Your task to perform on an android device: Open the calculator Image 0: 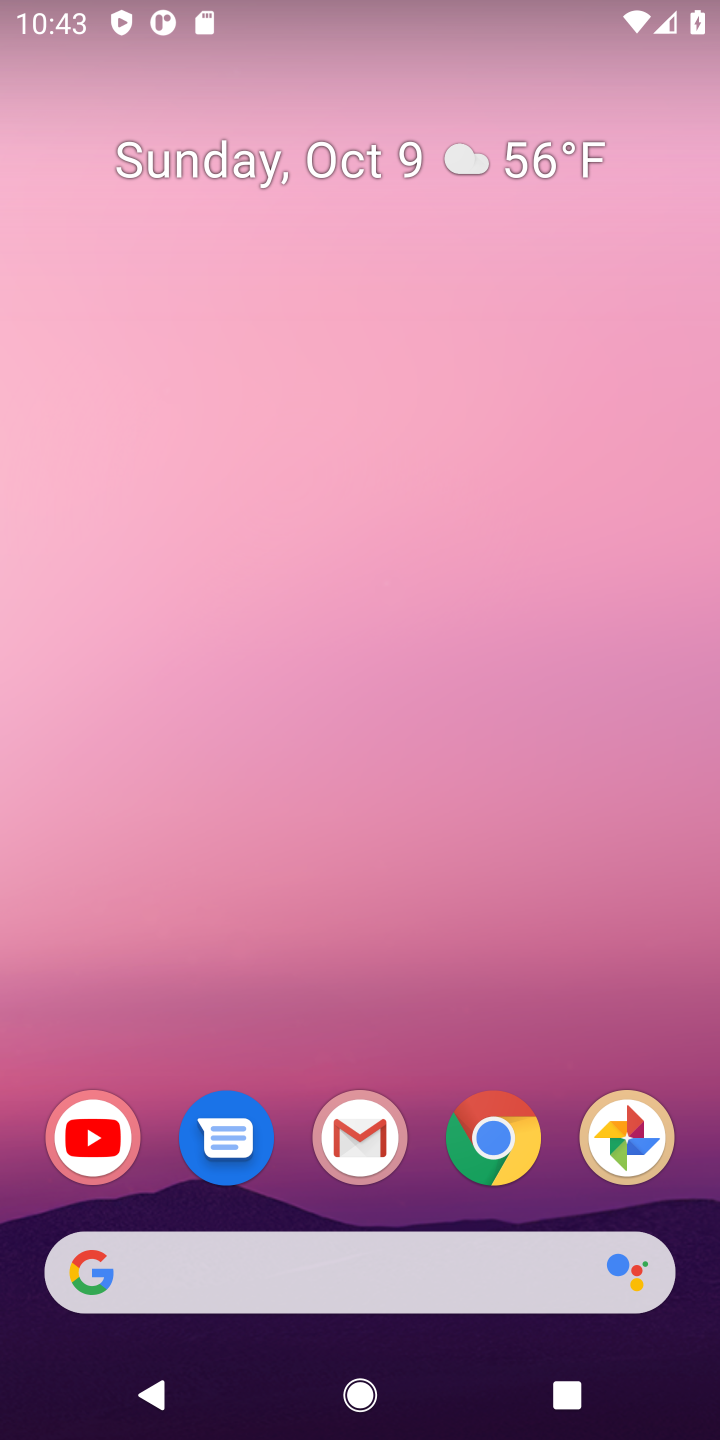
Step 0: drag from (220, 971) to (218, 41)
Your task to perform on an android device: Open the calculator Image 1: 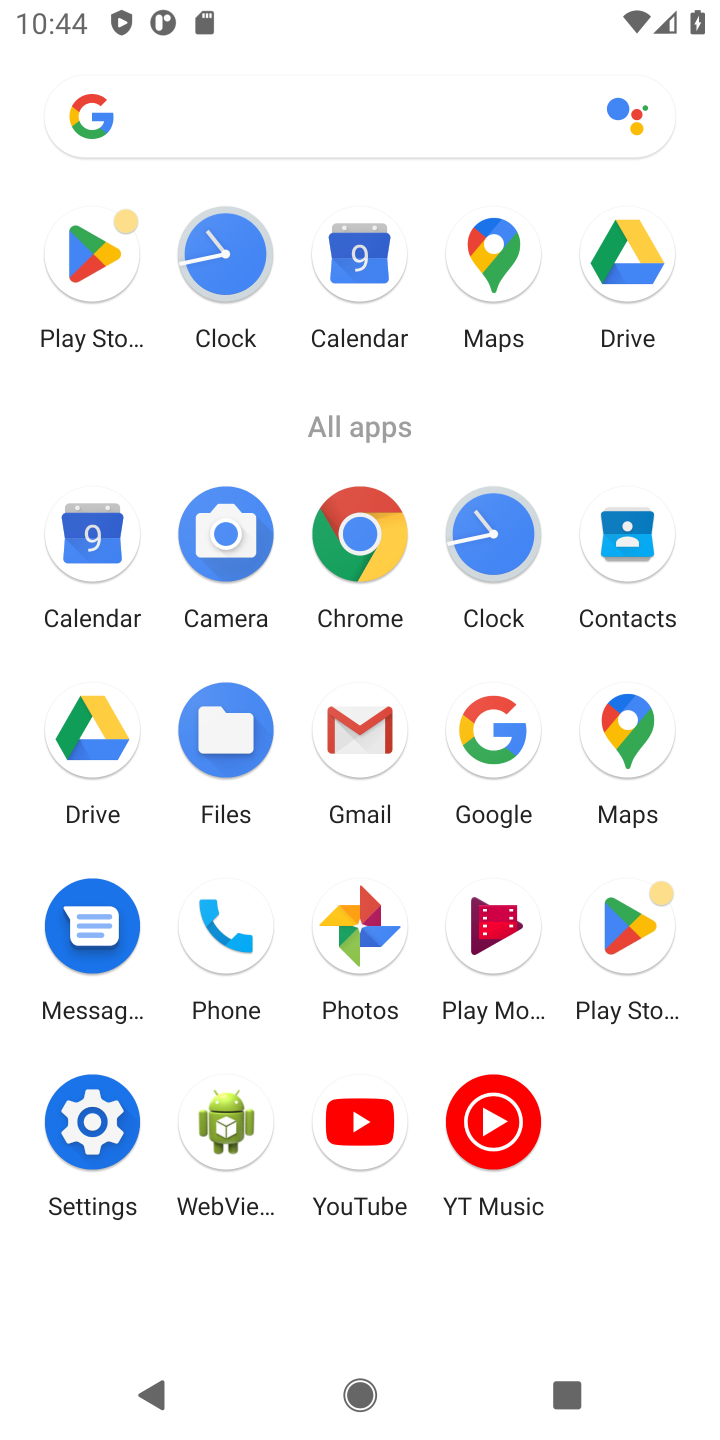
Step 1: click (107, 539)
Your task to perform on an android device: Open the calculator Image 2: 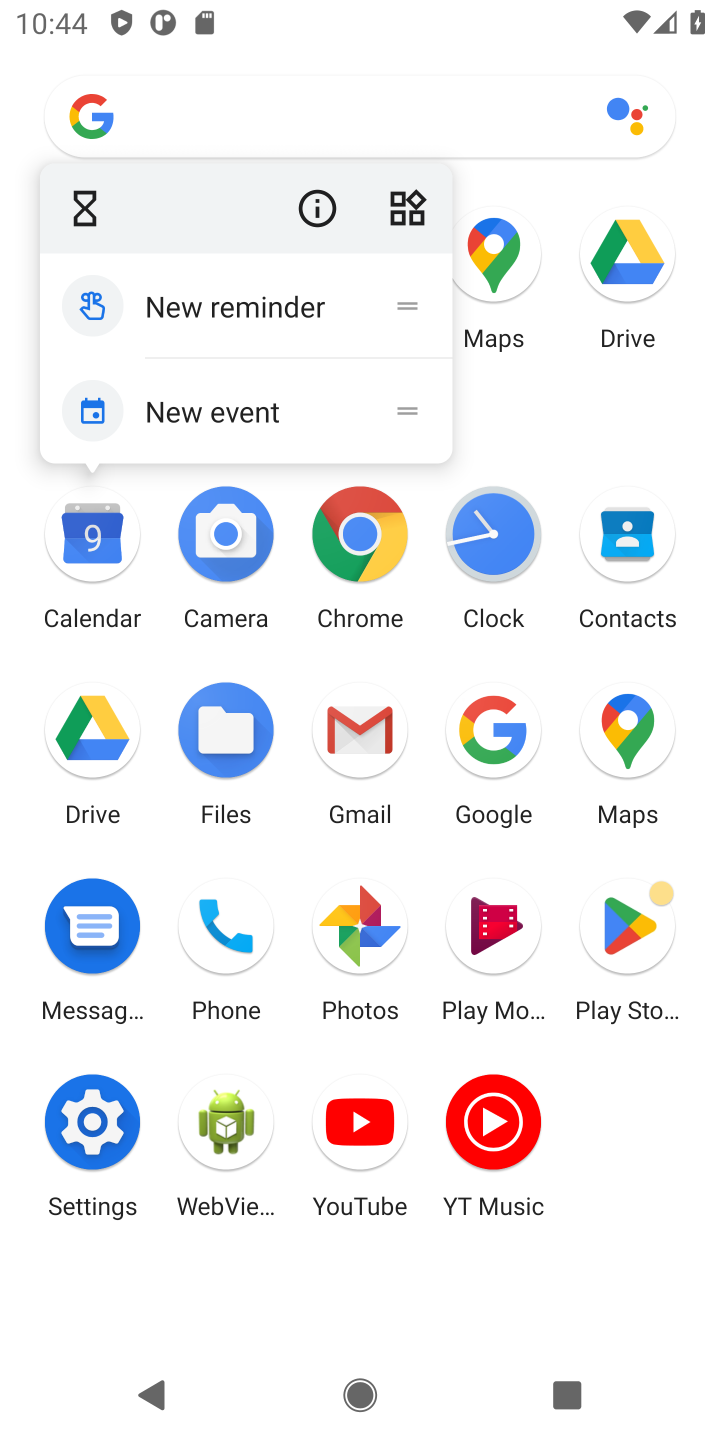
Step 2: click (86, 545)
Your task to perform on an android device: Open the calculator Image 3: 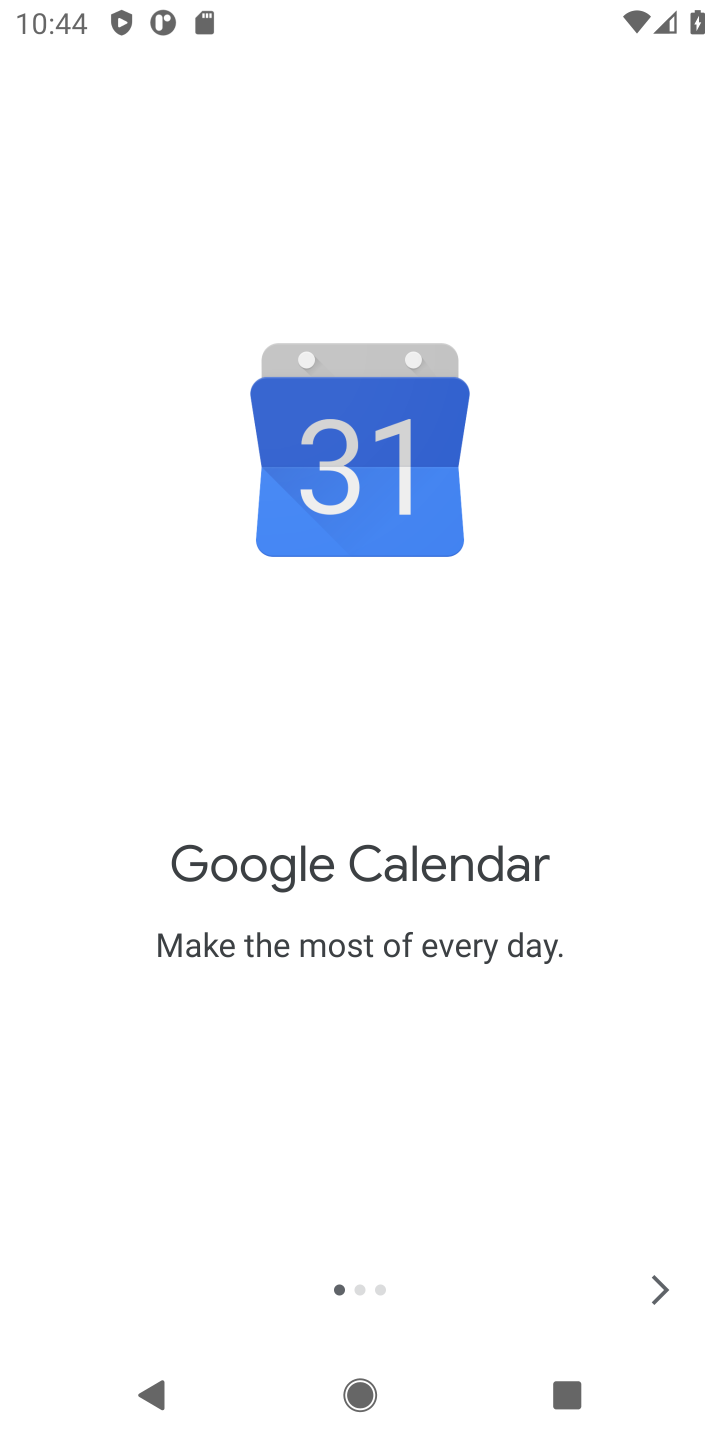
Step 3: click (662, 1280)
Your task to perform on an android device: Open the calculator Image 4: 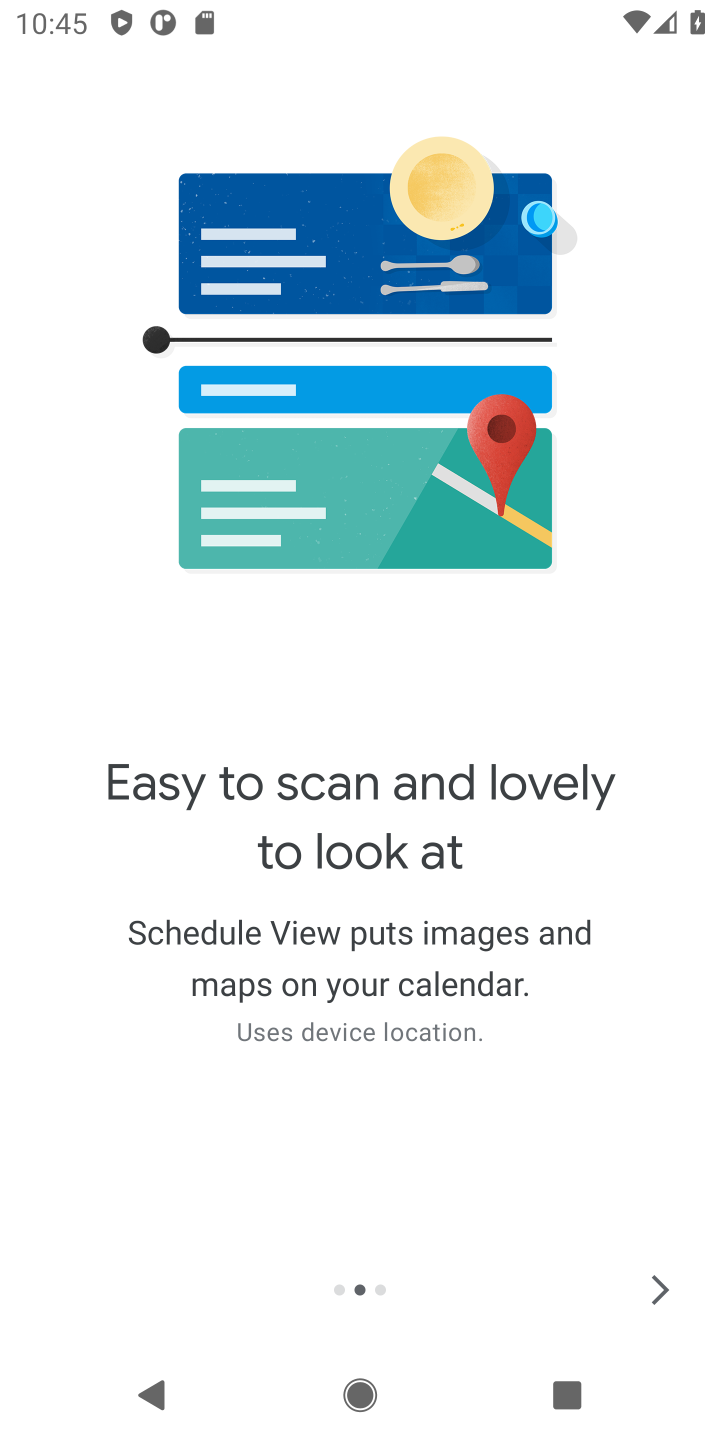
Step 4: click (662, 1280)
Your task to perform on an android device: Open the calculator Image 5: 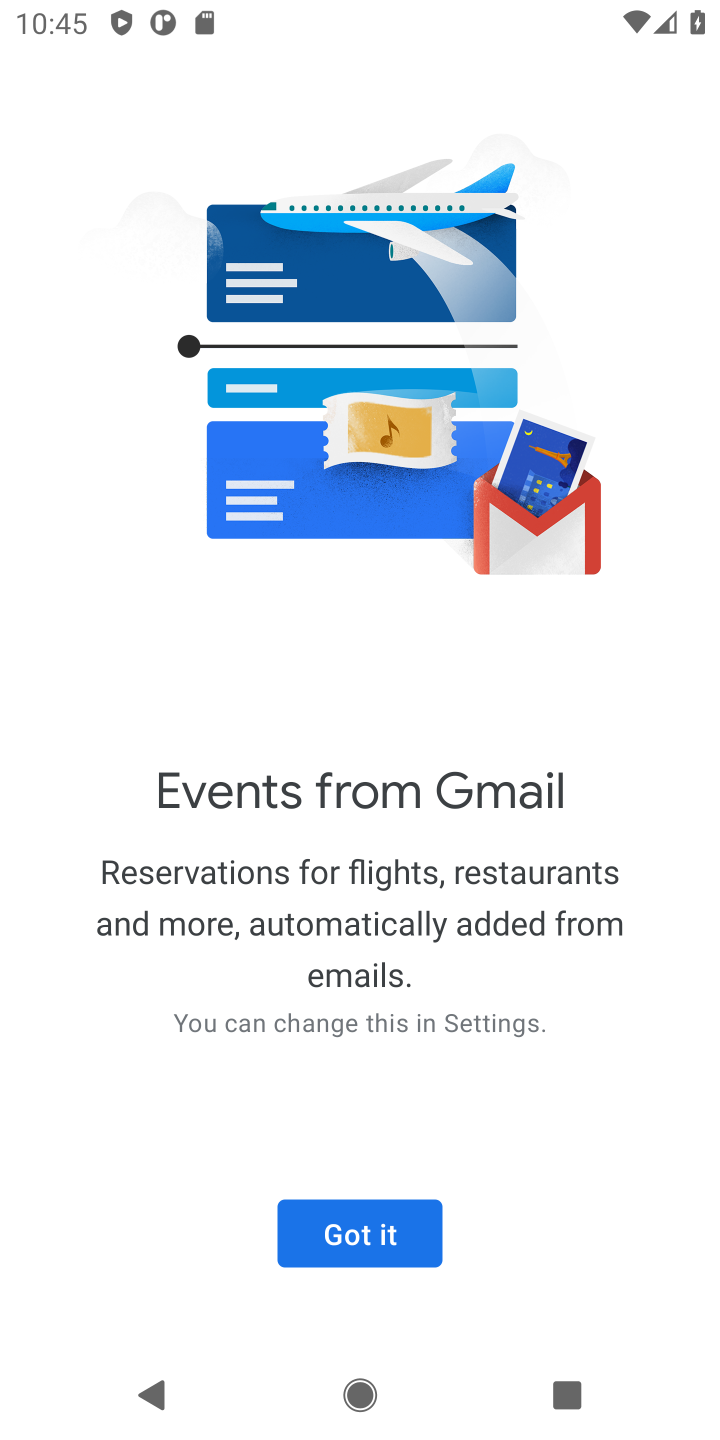
Step 5: click (367, 1227)
Your task to perform on an android device: Open the calculator Image 6: 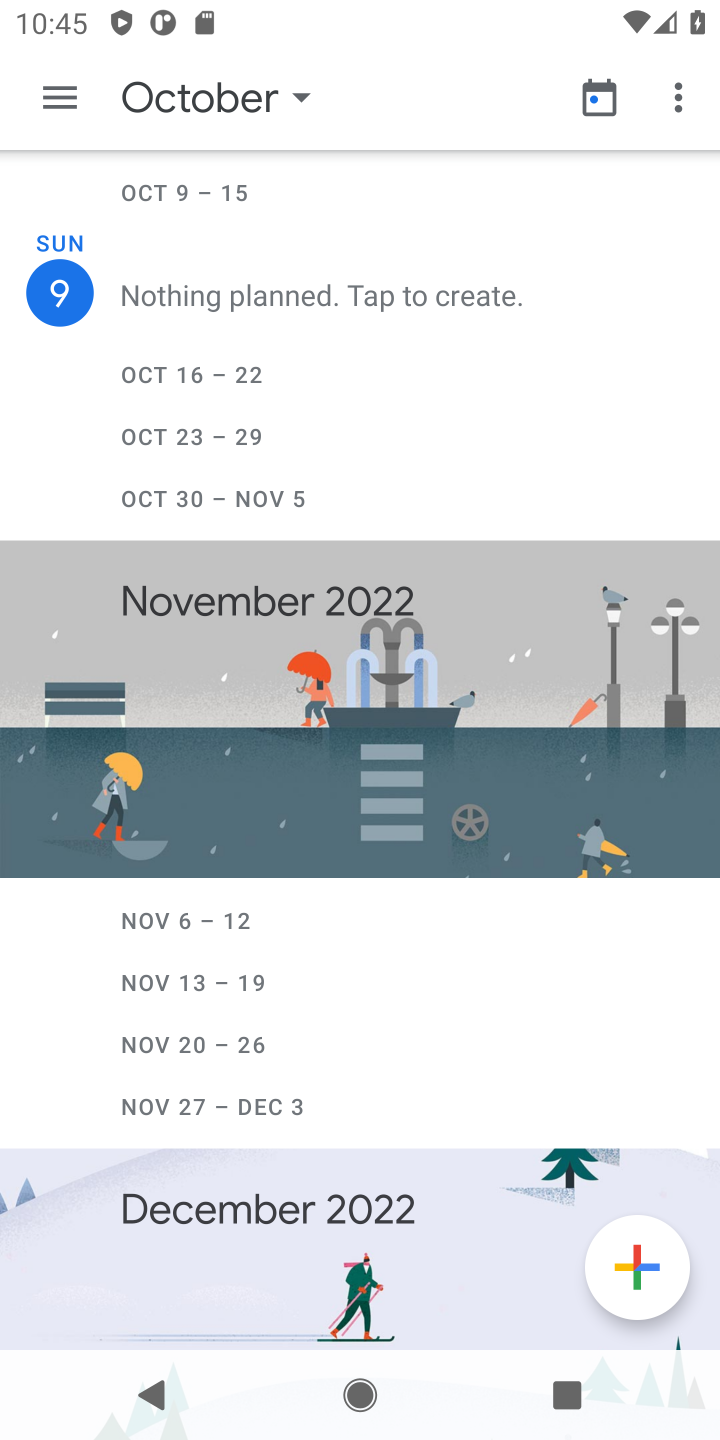
Step 6: click (220, 96)
Your task to perform on an android device: Open the calculator Image 7: 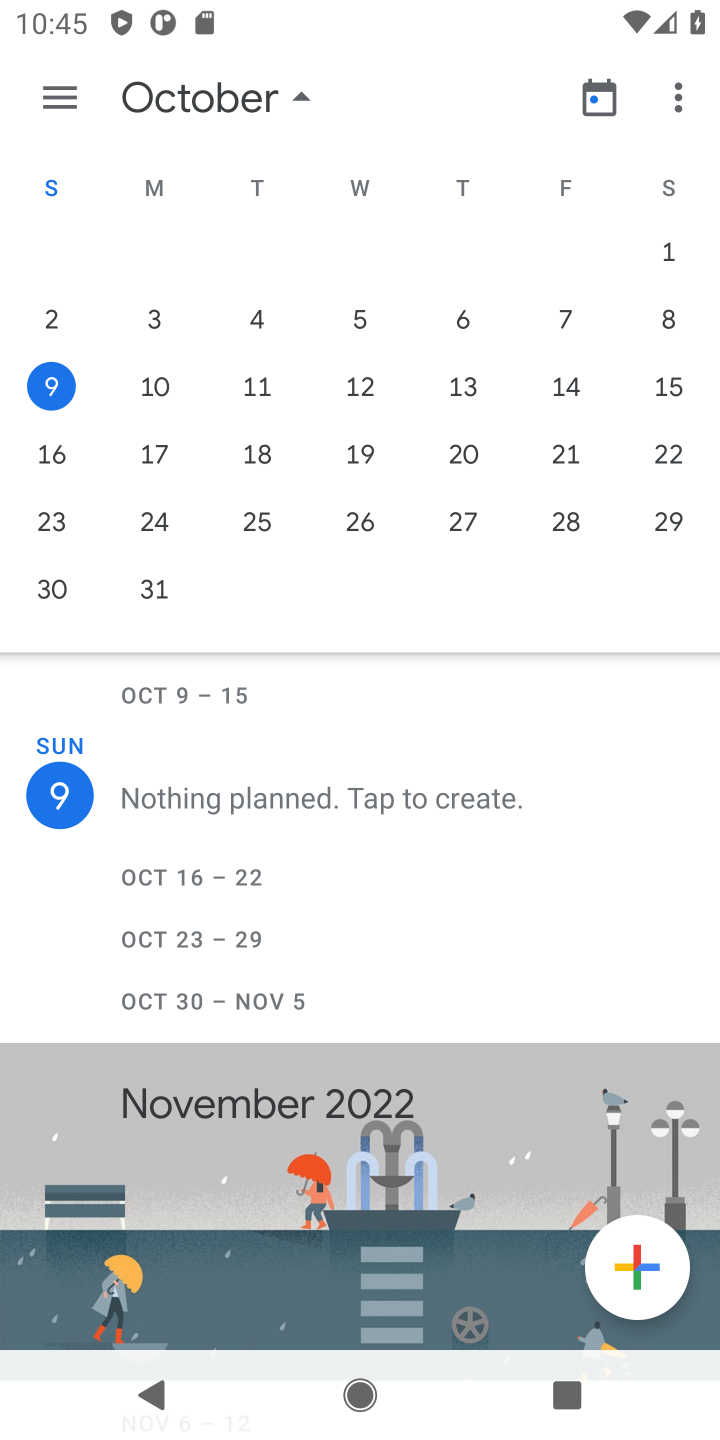
Step 7: task complete